Your task to perform on an android device: change the clock display to digital Image 0: 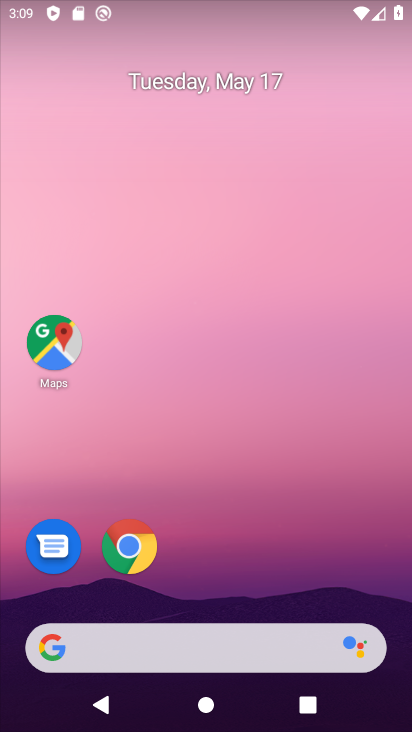
Step 0: drag from (229, 630) to (274, 252)
Your task to perform on an android device: change the clock display to digital Image 1: 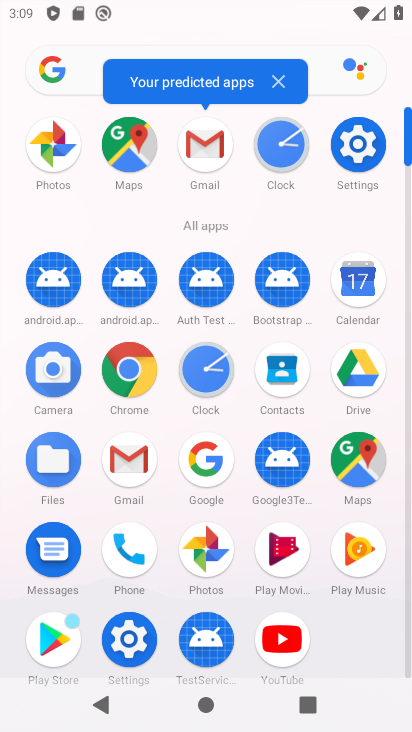
Step 1: click (287, 151)
Your task to perform on an android device: change the clock display to digital Image 2: 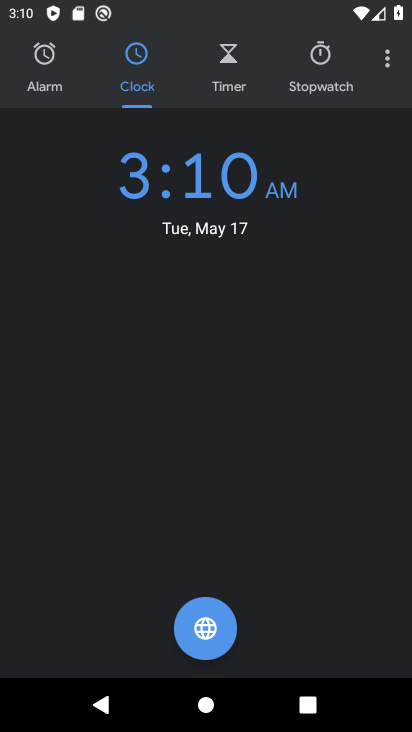
Step 2: click (383, 64)
Your task to perform on an android device: change the clock display to digital Image 3: 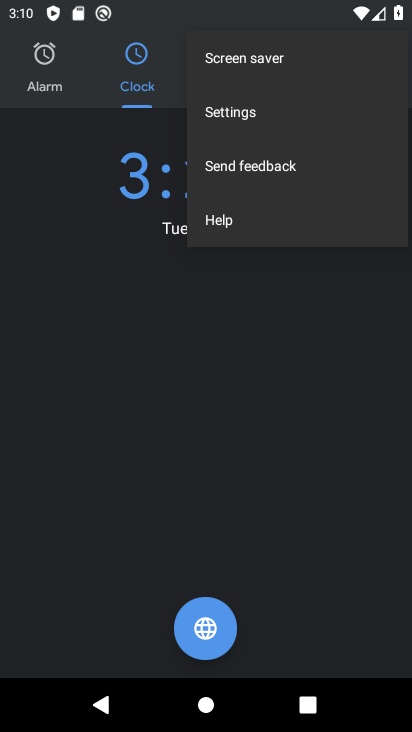
Step 3: click (232, 119)
Your task to perform on an android device: change the clock display to digital Image 4: 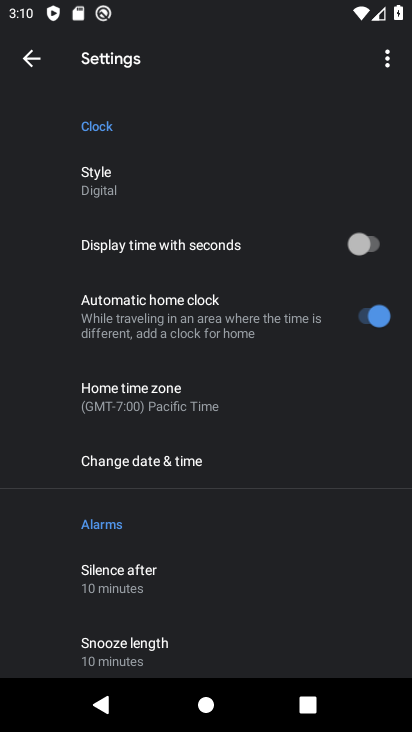
Step 4: click (120, 183)
Your task to perform on an android device: change the clock display to digital Image 5: 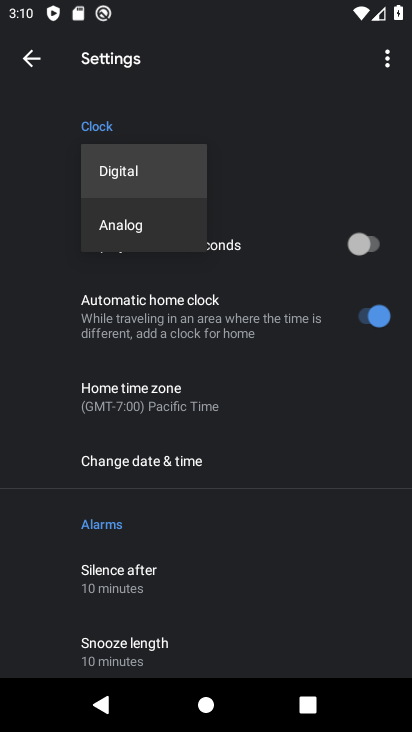
Step 5: task complete